Your task to perform on an android device: turn off airplane mode Image 0: 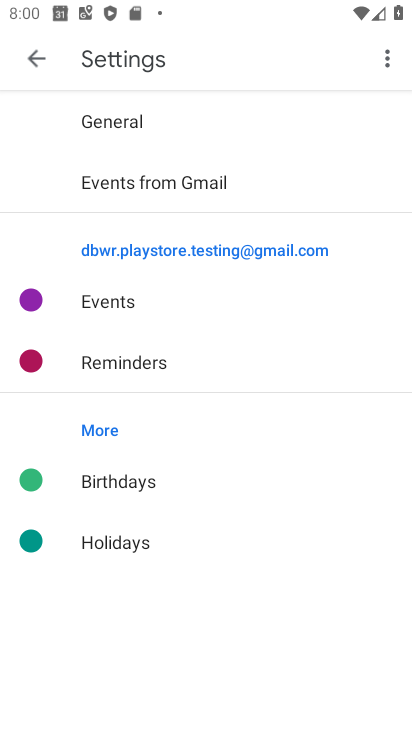
Step 0: drag from (223, 575) to (278, 202)
Your task to perform on an android device: turn off airplane mode Image 1: 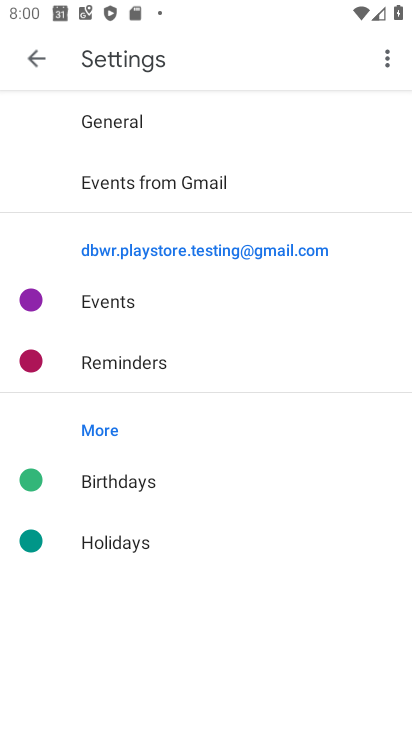
Step 1: press home button
Your task to perform on an android device: turn off airplane mode Image 2: 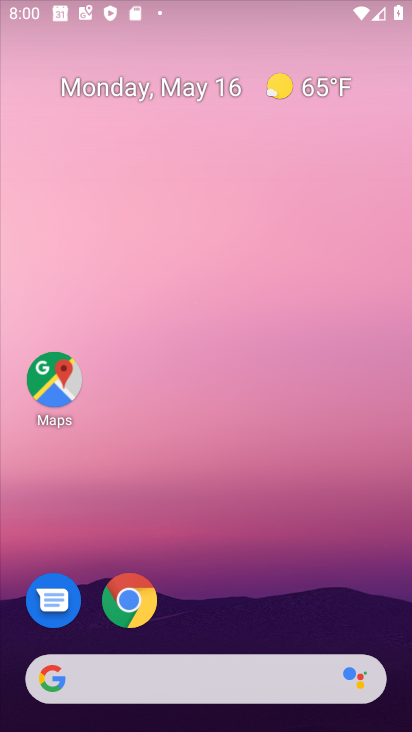
Step 2: drag from (165, 581) to (259, 108)
Your task to perform on an android device: turn off airplane mode Image 3: 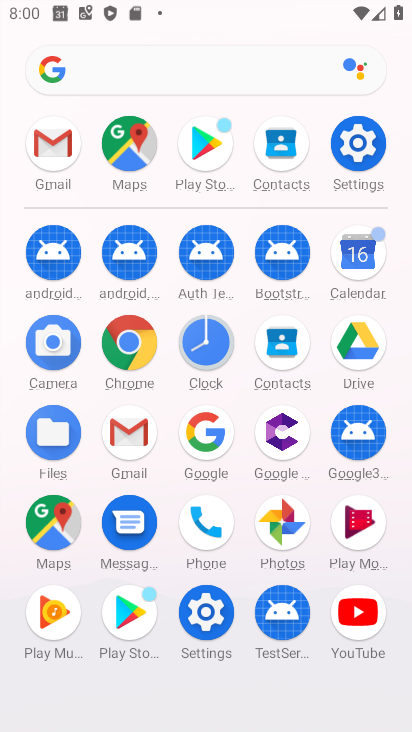
Step 3: click (361, 138)
Your task to perform on an android device: turn off airplane mode Image 4: 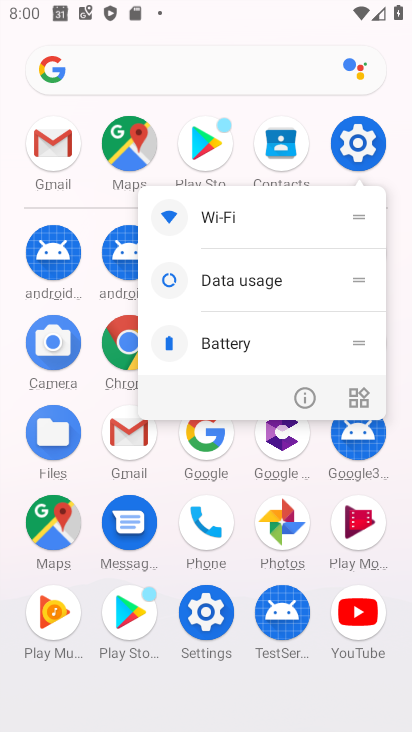
Step 4: click (305, 393)
Your task to perform on an android device: turn off airplane mode Image 5: 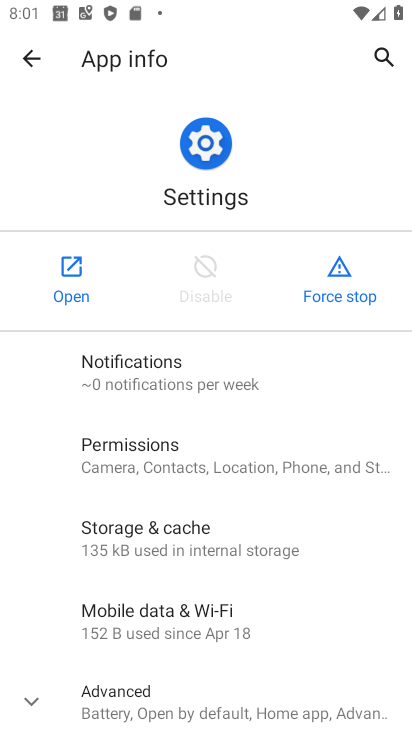
Step 5: click (83, 271)
Your task to perform on an android device: turn off airplane mode Image 6: 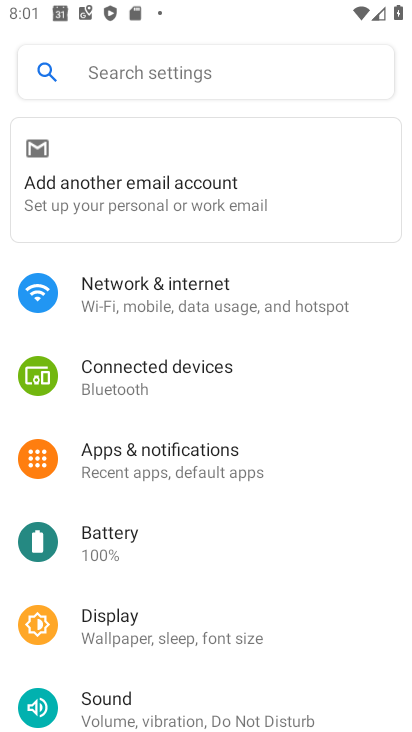
Step 6: click (175, 274)
Your task to perform on an android device: turn off airplane mode Image 7: 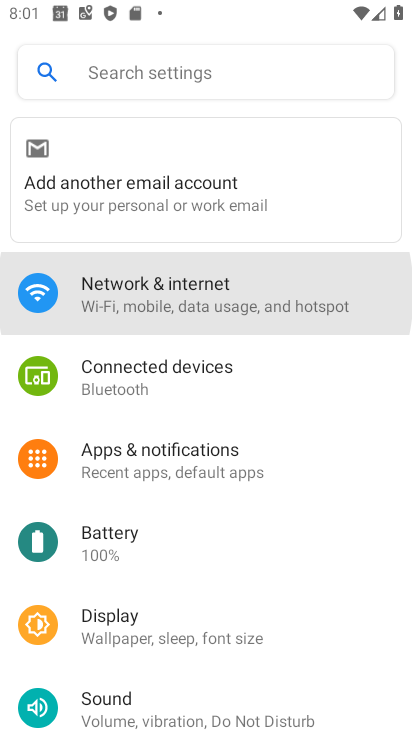
Step 7: click (176, 274)
Your task to perform on an android device: turn off airplane mode Image 8: 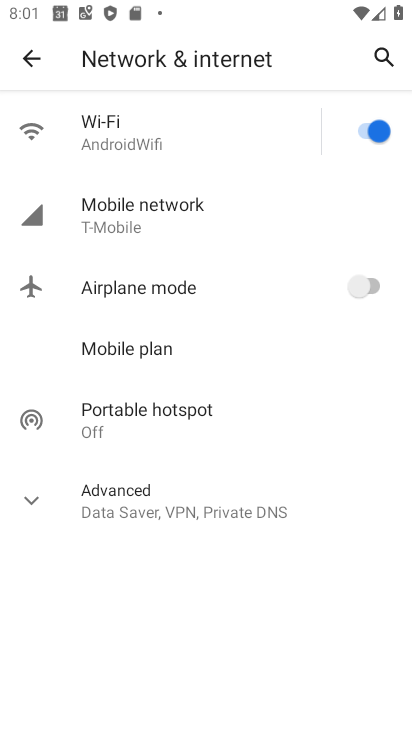
Step 8: task complete